Your task to perform on an android device: empty trash in google photos Image 0: 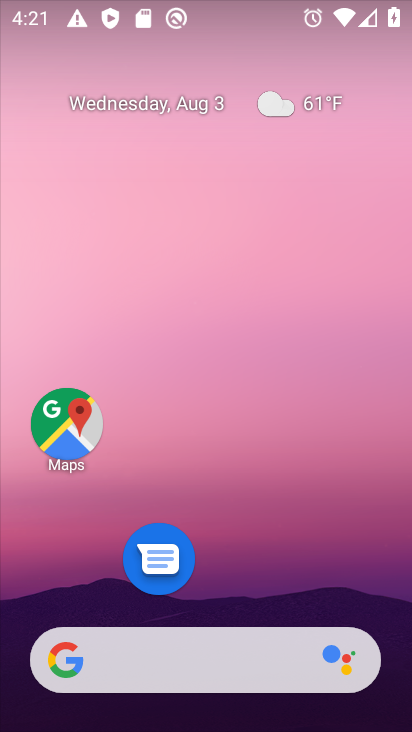
Step 0: drag from (207, 620) to (166, 167)
Your task to perform on an android device: empty trash in google photos Image 1: 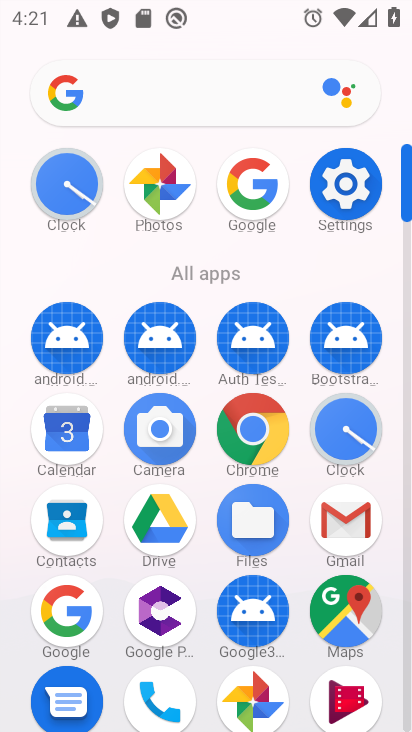
Step 1: click (256, 701)
Your task to perform on an android device: empty trash in google photos Image 2: 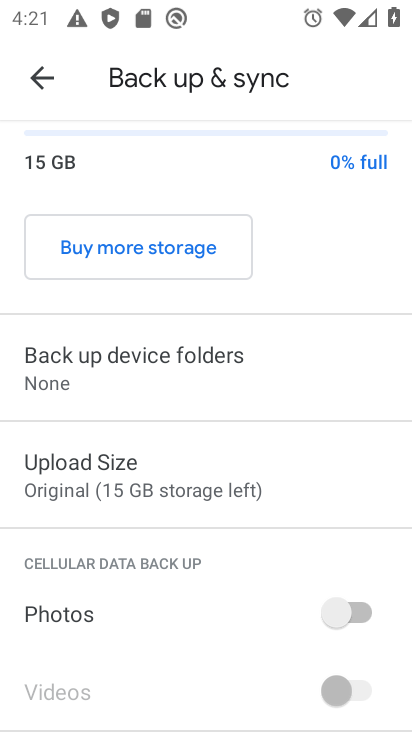
Step 2: drag from (148, 626) to (148, 231)
Your task to perform on an android device: empty trash in google photos Image 3: 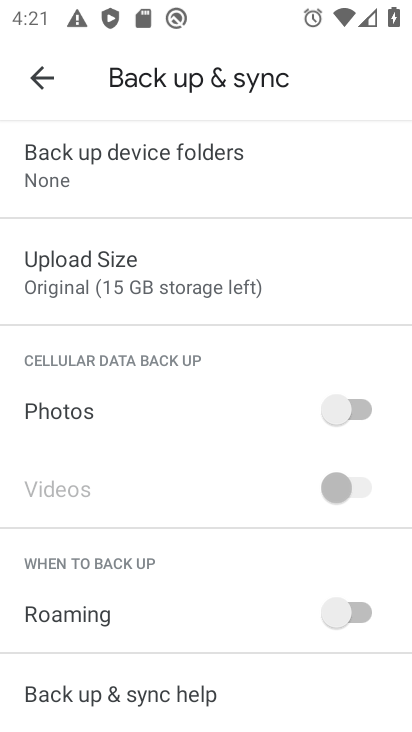
Step 3: drag from (167, 209) to (181, 584)
Your task to perform on an android device: empty trash in google photos Image 4: 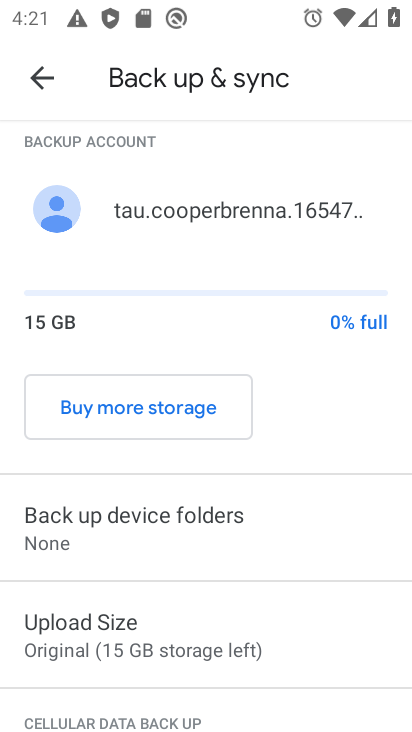
Step 4: click (34, 81)
Your task to perform on an android device: empty trash in google photos Image 5: 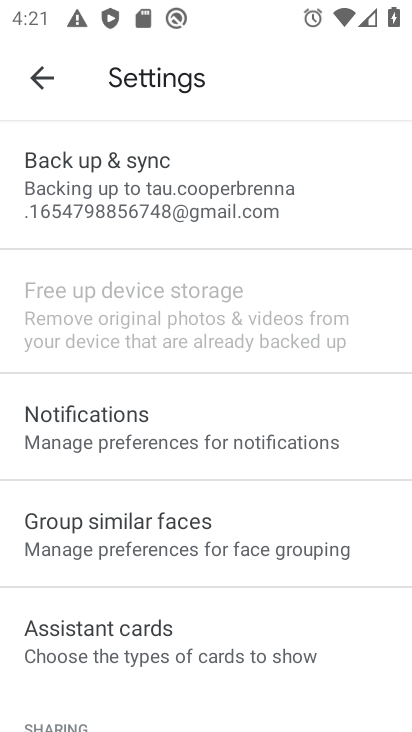
Step 5: drag from (41, 79) to (91, 79)
Your task to perform on an android device: empty trash in google photos Image 6: 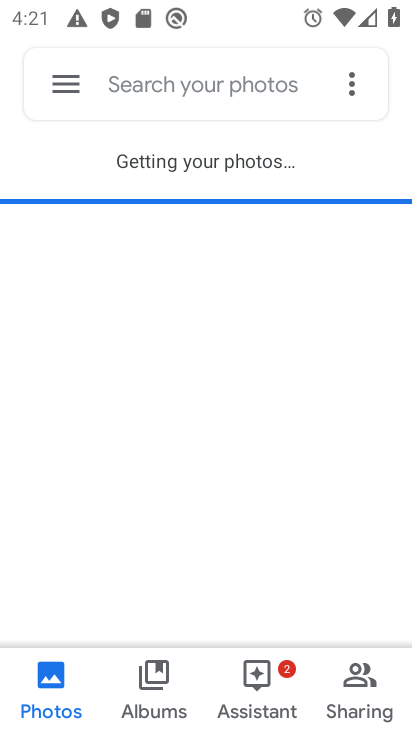
Step 6: click (73, 76)
Your task to perform on an android device: empty trash in google photos Image 7: 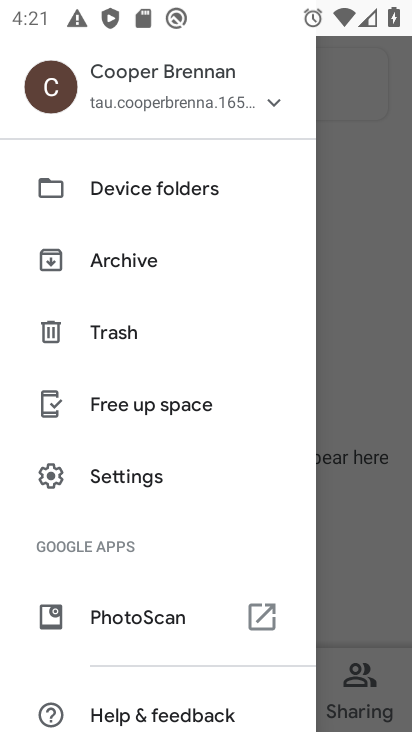
Step 7: click (102, 346)
Your task to perform on an android device: empty trash in google photos Image 8: 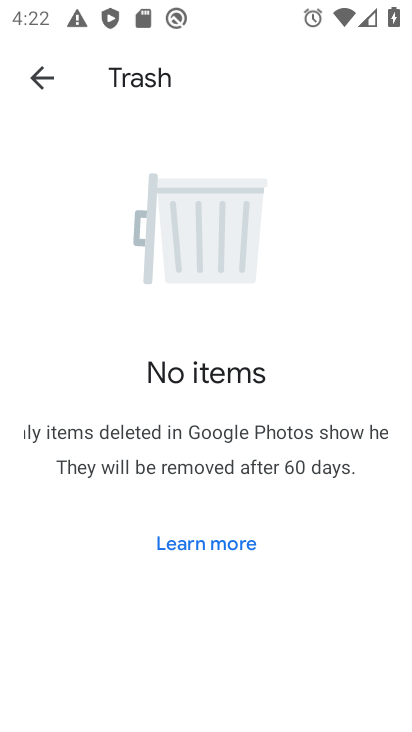
Step 8: task complete